Your task to perform on an android device: Search for seafood restaurants on Google Maps Image 0: 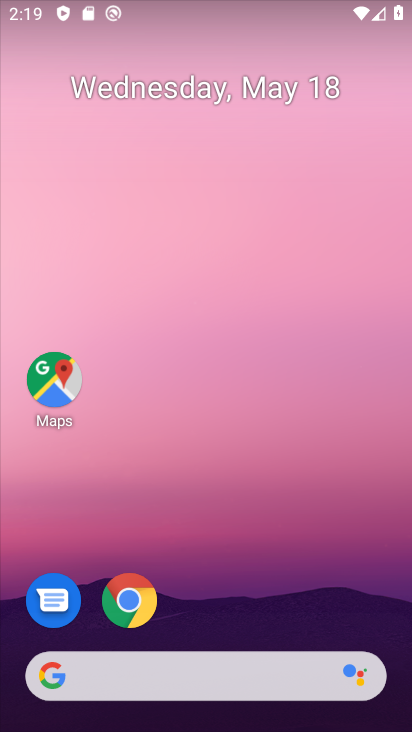
Step 0: click (65, 378)
Your task to perform on an android device: Search for seafood restaurants on Google Maps Image 1: 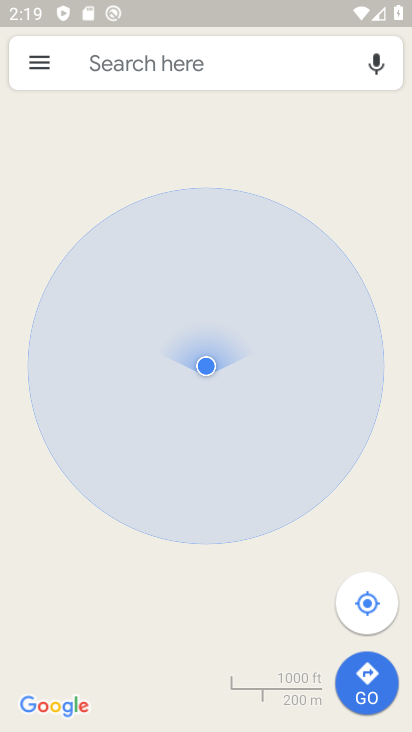
Step 1: click (188, 64)
Your task to perform on an android device: Search for seafood restaurants on Google Maps Image 2: 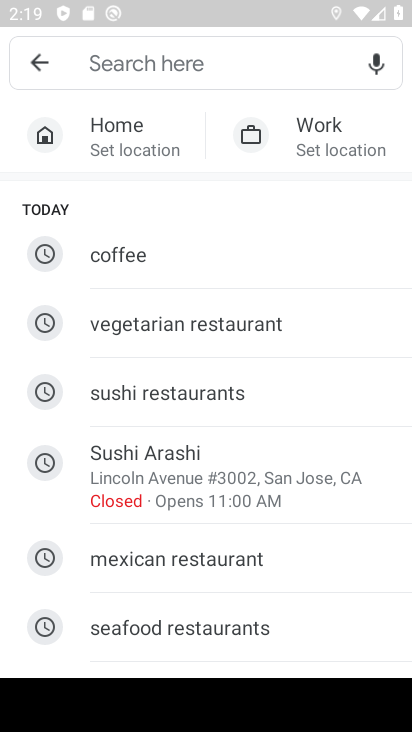
Step 2: type "seafood restaurants"
Your task to perform on an android device: Search for seafood restaurants on Google Maps Image 3: 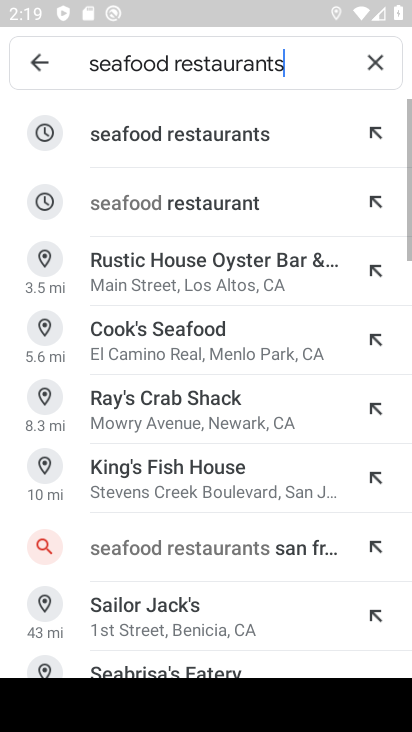
Step 3: click (232, 140)
Your task to perform on an android device: Search for seafood restaurants on Google Maps Image 4: 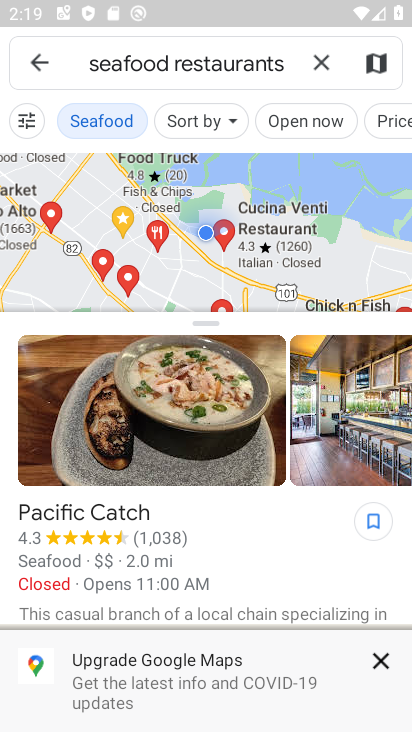
Step 4: task complete